Your task to perform on an android device: Turn on the flashlight Image 0: 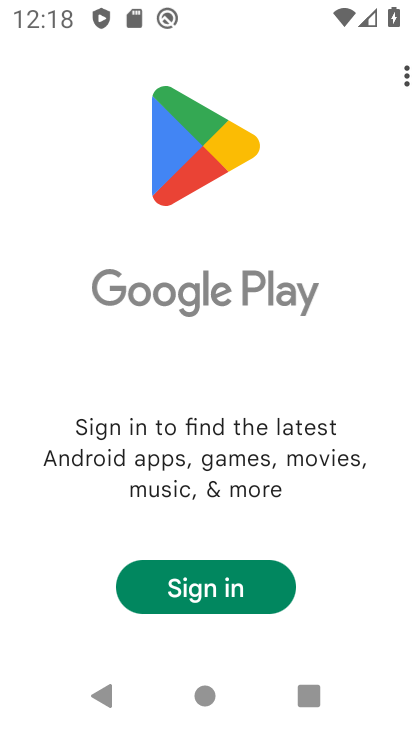
Step 0: press home button
Your task to perform on an android device: Turn on the flashlight Image 1: 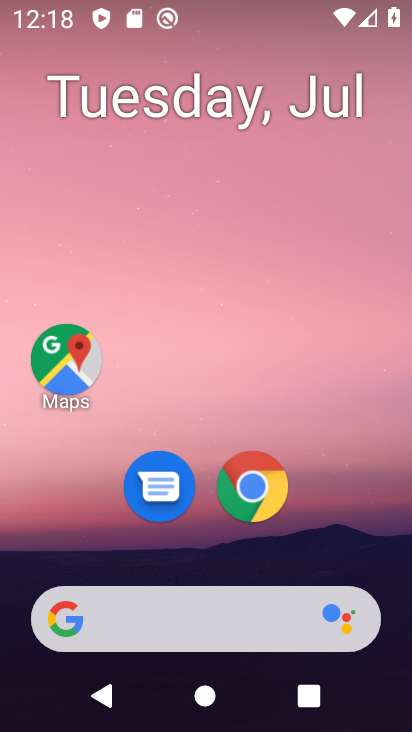
Step 1: drag from (252, 7) to (236, 476)
Your task to perform on an android device: Turn on the flashlight Image 2: 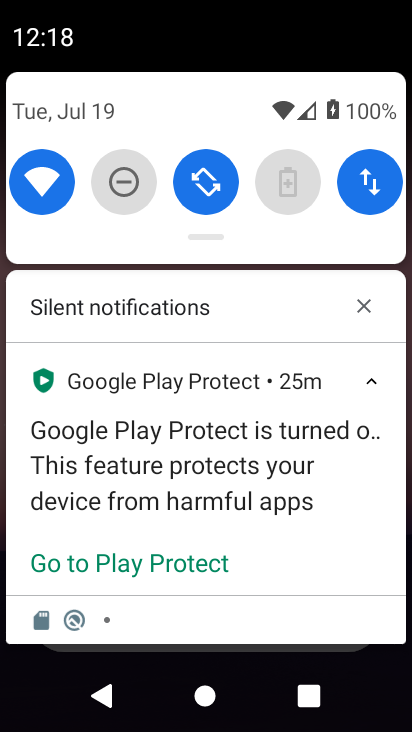
Step 2: drag from (248, 124) to (243, 451)
Your task to perform on an android device: Turn on the flashlight Image 3: 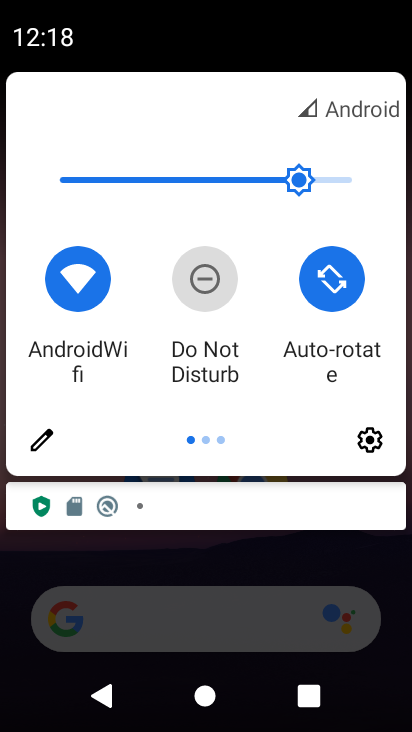
Step 3: click (40, 445)
Your task to perform on an android device: Turn on the flashlight Image 4: 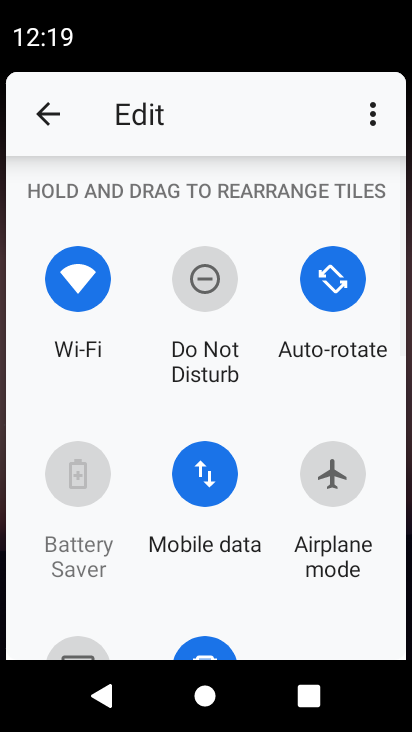
Step 4: drag from (255, 552) to (263, 386)
Your task to perform on an android device: Turn on the flashlight Image 5: 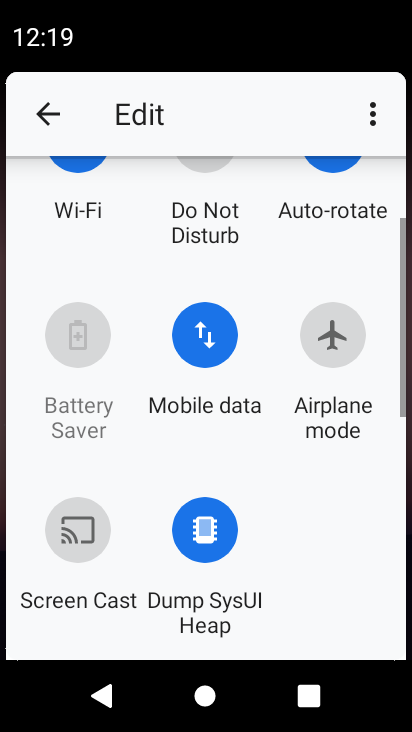
Step 5: drag from (277, 515) to (287, 343)
Your task to perform on an android device: Turn on the flashlight Image 6: 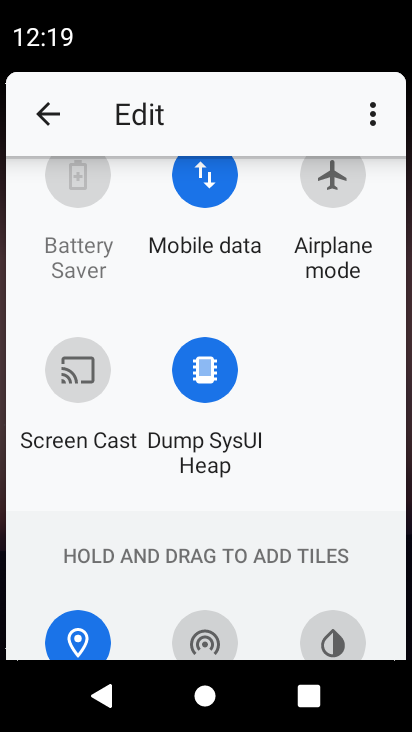
Step 6: drag from (267, 542) to (280, 337)
Your task to perform on an android device: Turn on the flashlight Image 7: 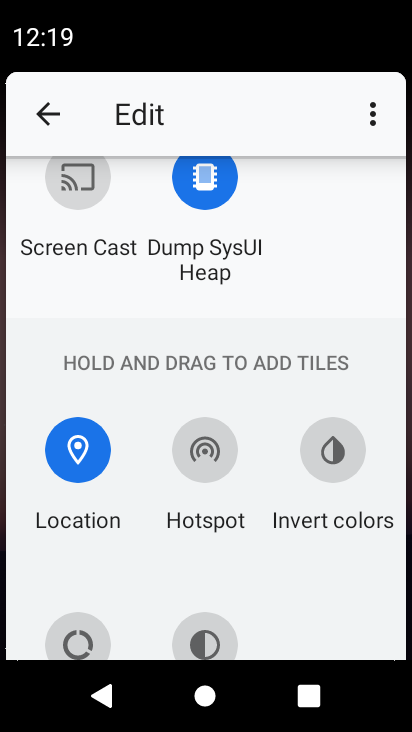
Step 7: drag from (266, 578) to (278, 378)
Your task to perform on an android device: Turn on the flashlight Image 8: 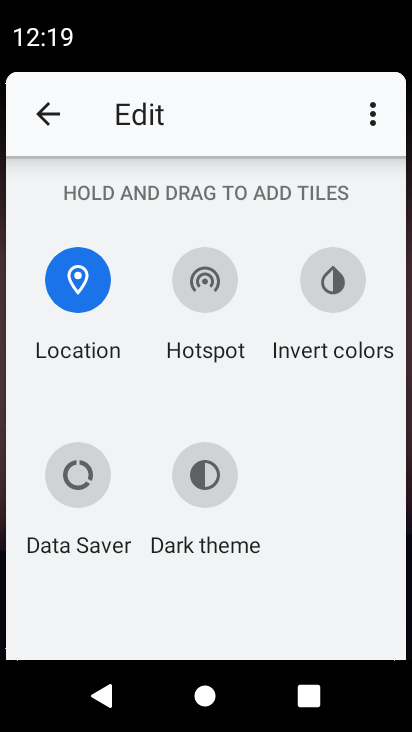
Step 8: drag from (315, 550) to (332, 386)
Your task to perform on an android device: Turn on the flashlight Image 9: 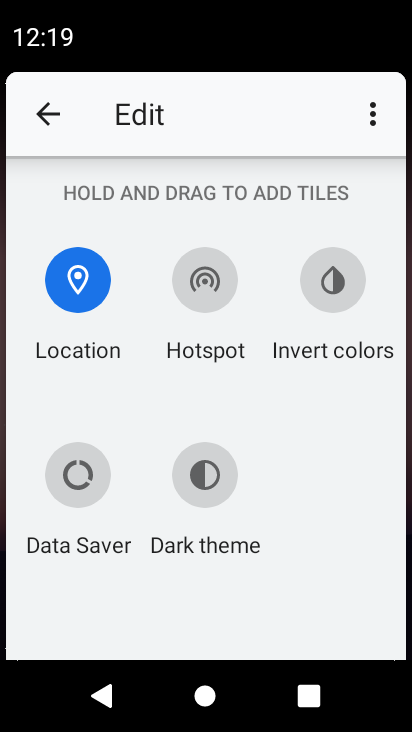
Step 9: drag from (274, 222) to (276, 406)
Your task to perform on an android device: Turn on the flashlight Image 10: 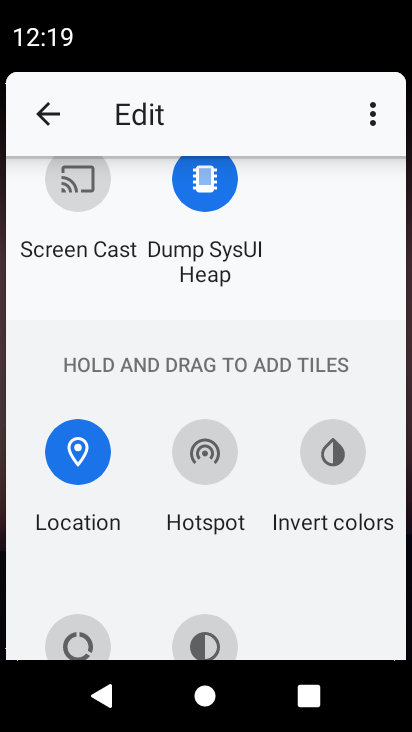
Step 10: click (36, 106)
Your task to perform on an android device: Turn on the flashlight Image 11: 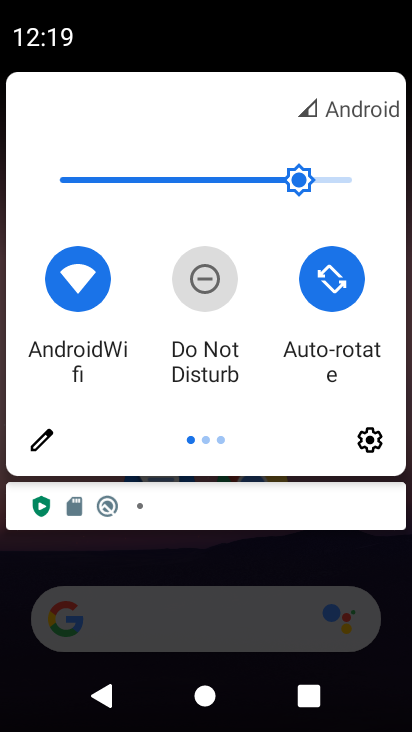
Step 11: task complete